Your task to perform on an android device: change the clock style Image 0: 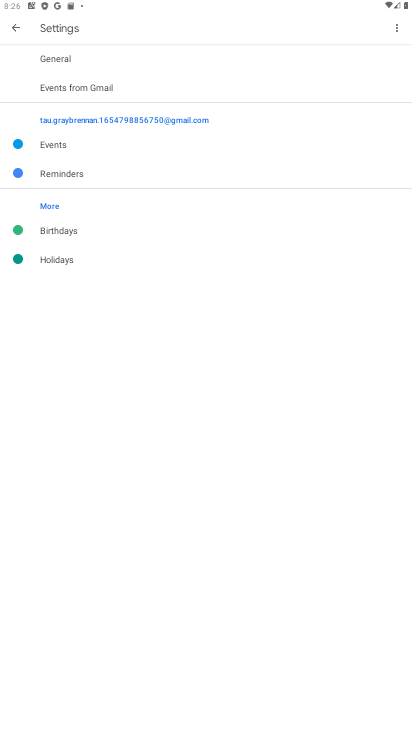
Step 0: task complete